Your task to perform on an android device: open app "Facebook Lite" Image 0: 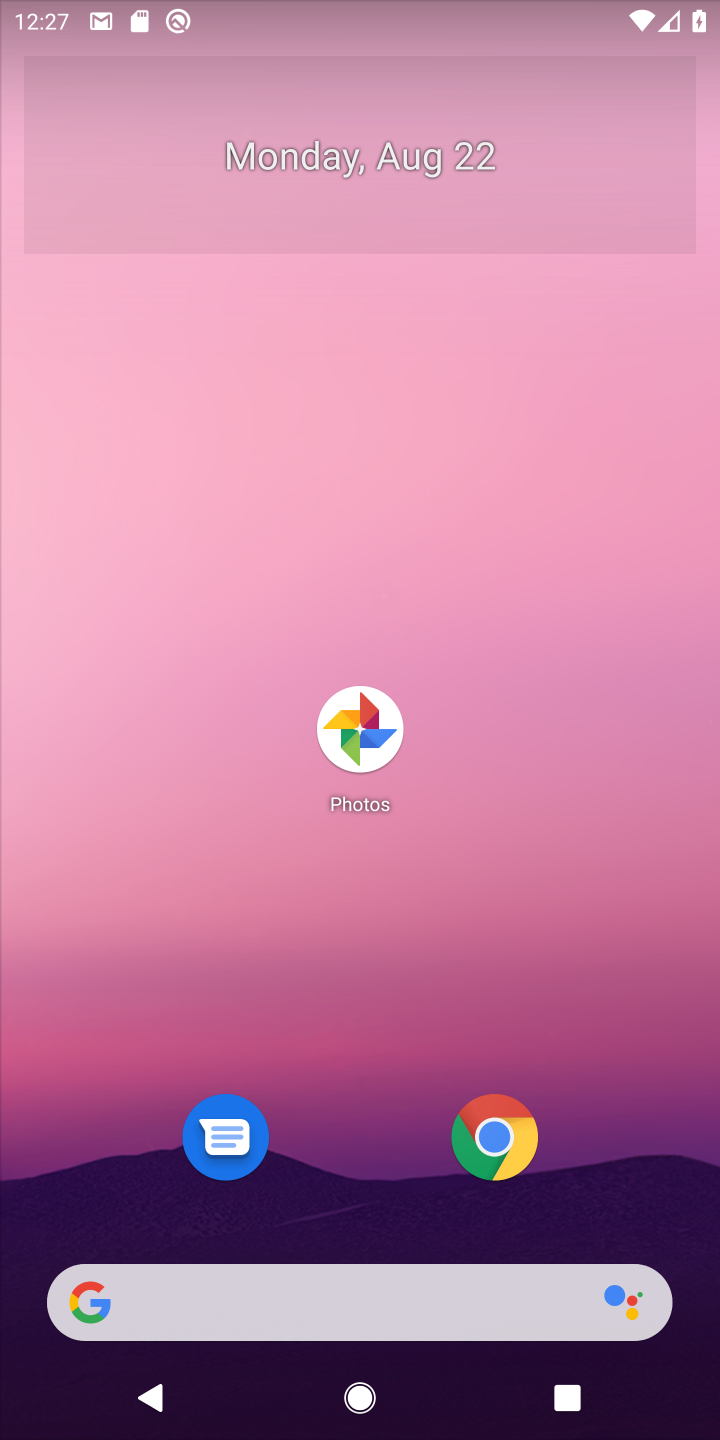
Step 0: drag from (670, 1188) to (620, 232)
Your task to perform on an android device: open app "Facebook Lite" Image 1: 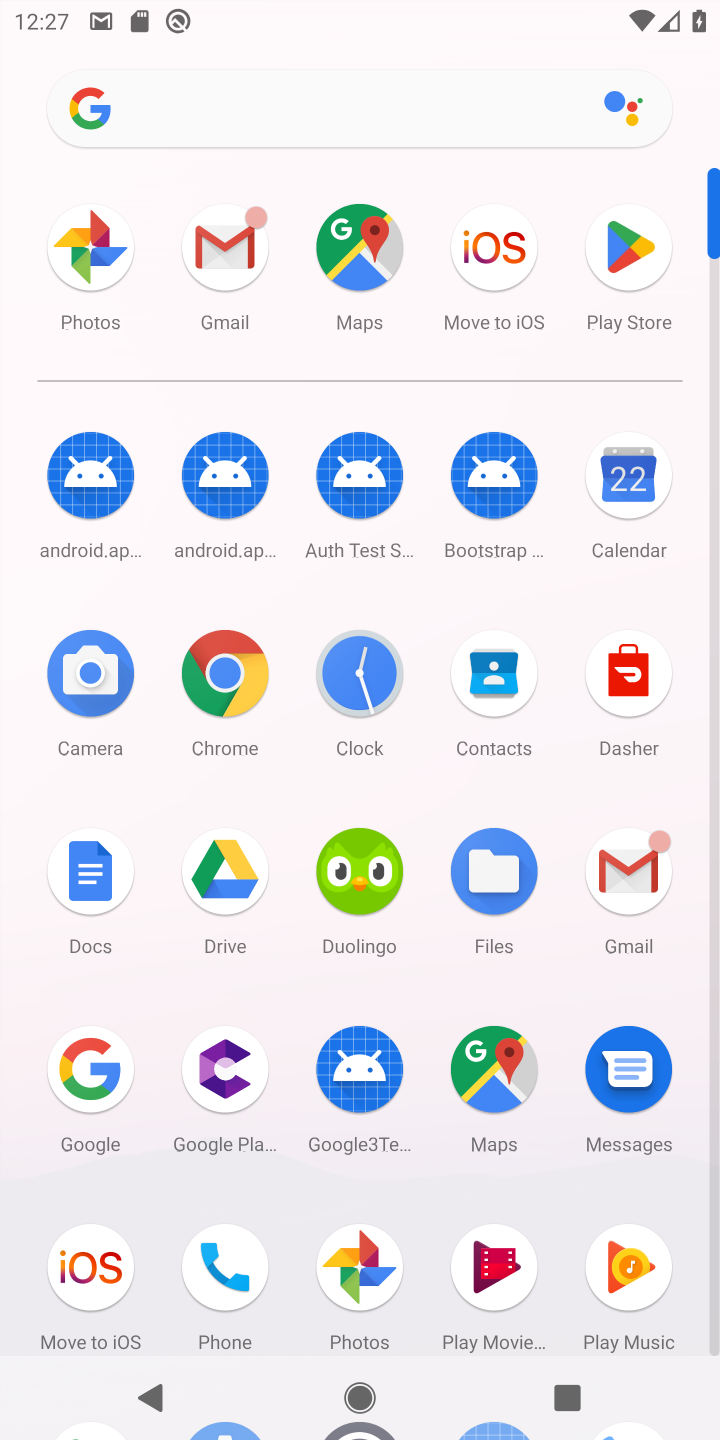
Step 1: drag from (560, 1211) to (572, 593)
Your task to perform on an android device: open app "Facebook Lite" Image 2: 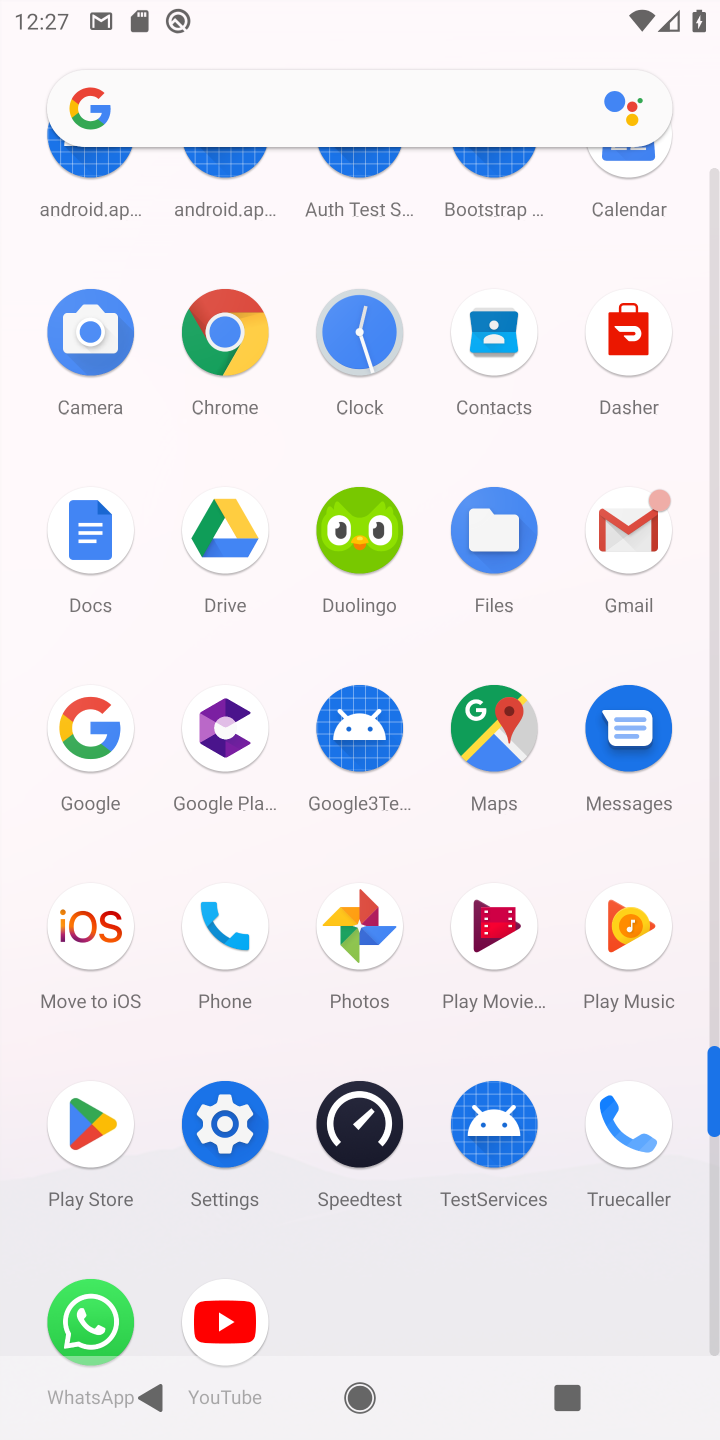
Step 2: click (90, 1126)
Your task to perform on an android device: open app "Facebook Lite" Image 3: 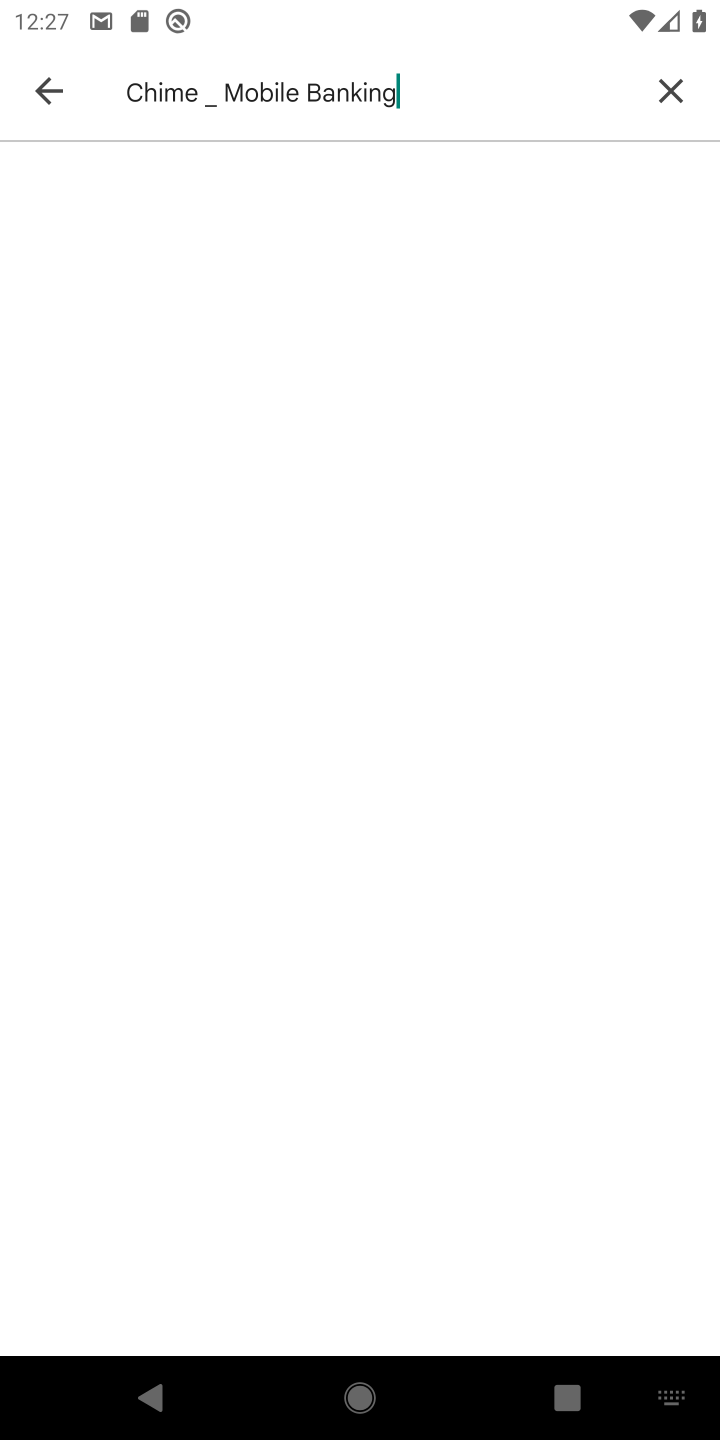
Step 3: click (663, 88)
Your task to perform on an android device: open app "Facebook Lite" Image 4: 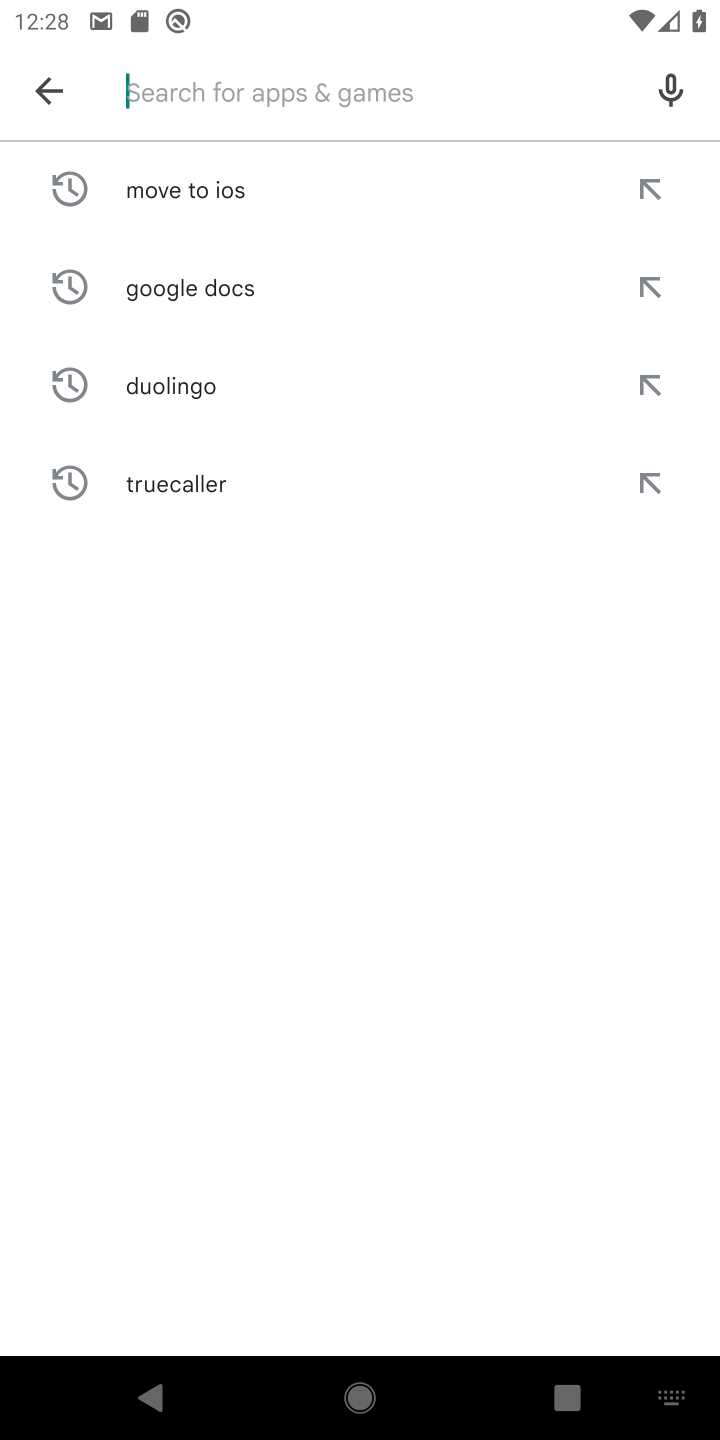
Step 4: type "Facebook lite"
Your task to perform on an android device: open app "Facebook Lite" Image 5: 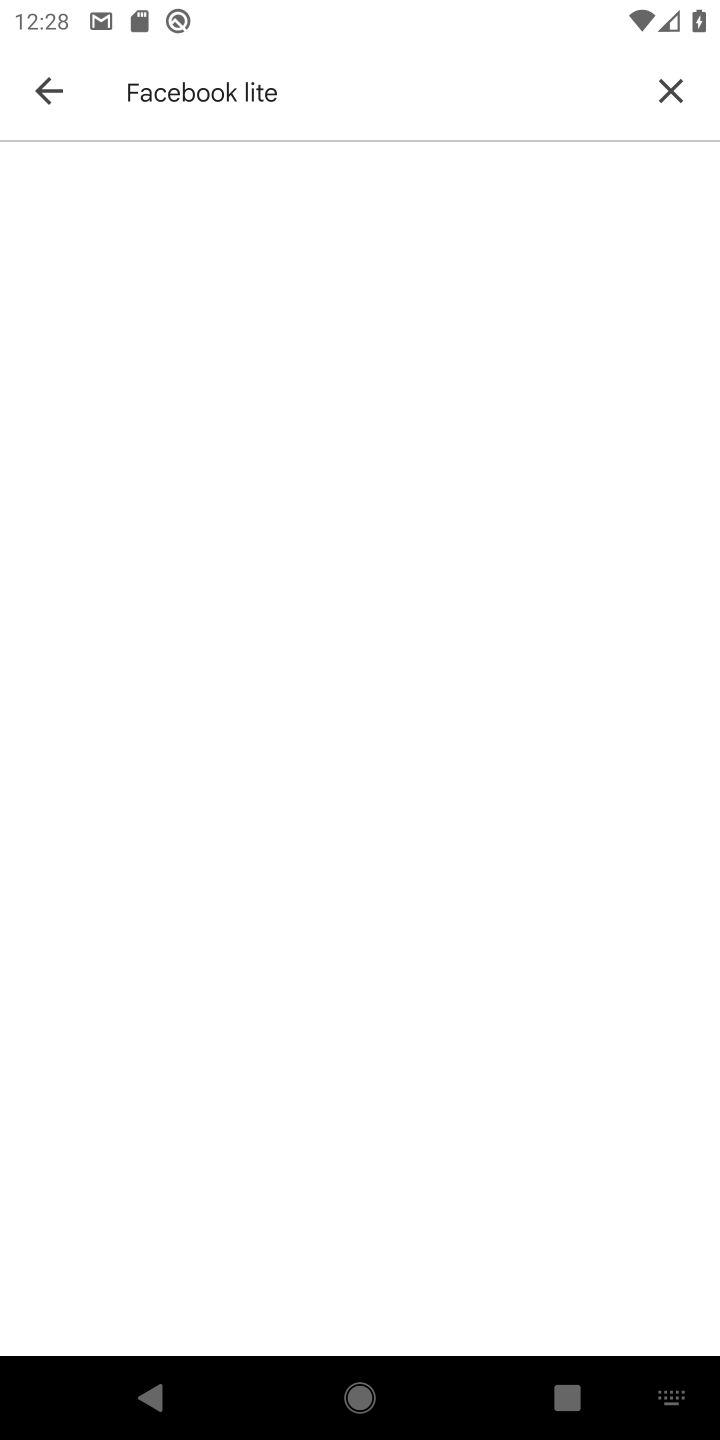
Step 5: task complete